Your task to perform on an android device: Is it going to rain today? Image 0: 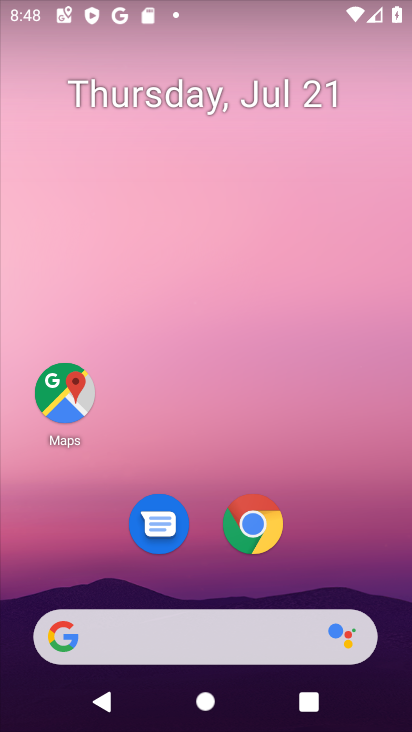
Step 0: press home button
Your task to perform on an android device: Is it going to rain today? Image 1: 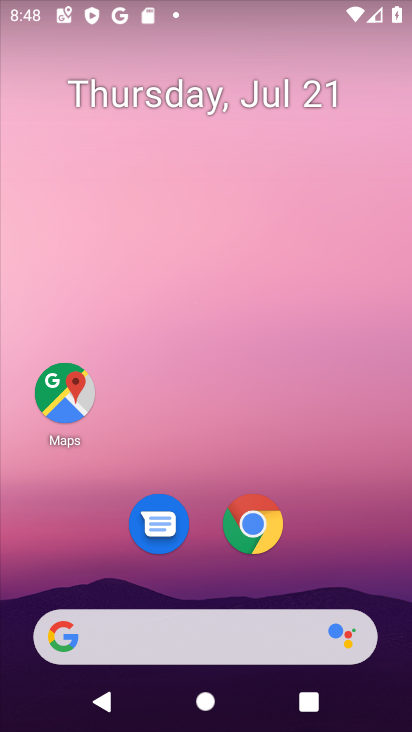
Step 1: click (154, 630)
Your task to perform on an android device: Is it going to rain today? Image 2: 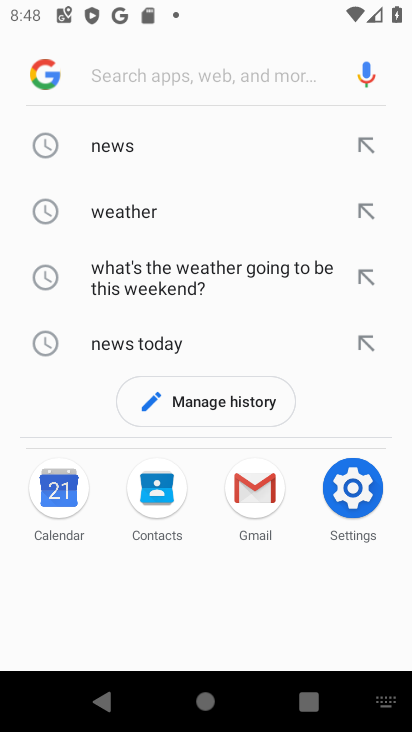
Step 2: click (137, 209)
Your task to perform on an android device: Is it going to rain today? Image 3: 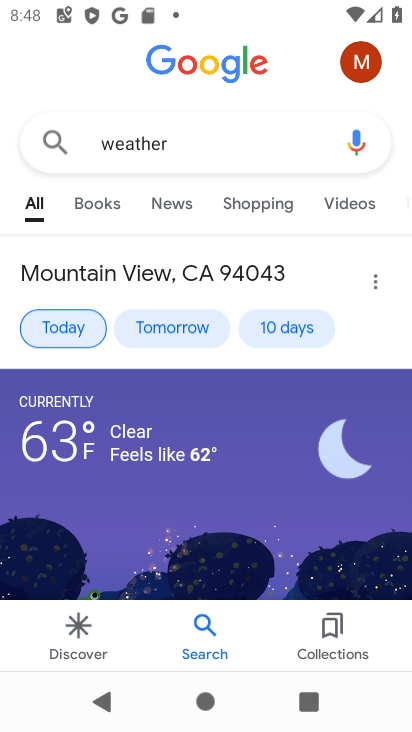
Step 3: task complete